Your task to perform on an android device: Open the calendar app, open the side menu, and click the "Day" option Image 0: 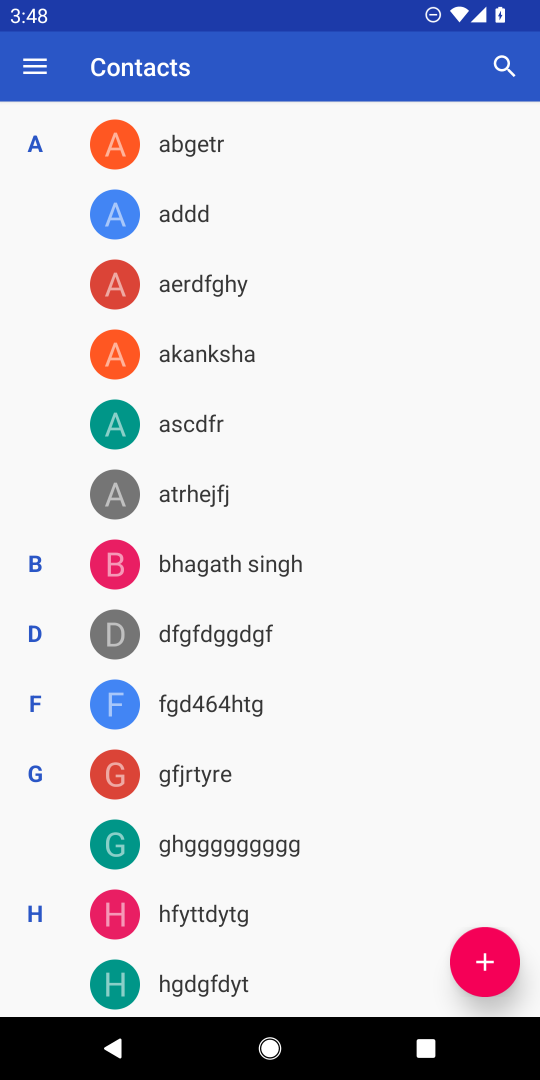
Step 0: press home button
Your task to perform on an android device: Open the calendar app, open the side menu, and click the "Day" option Image 1: 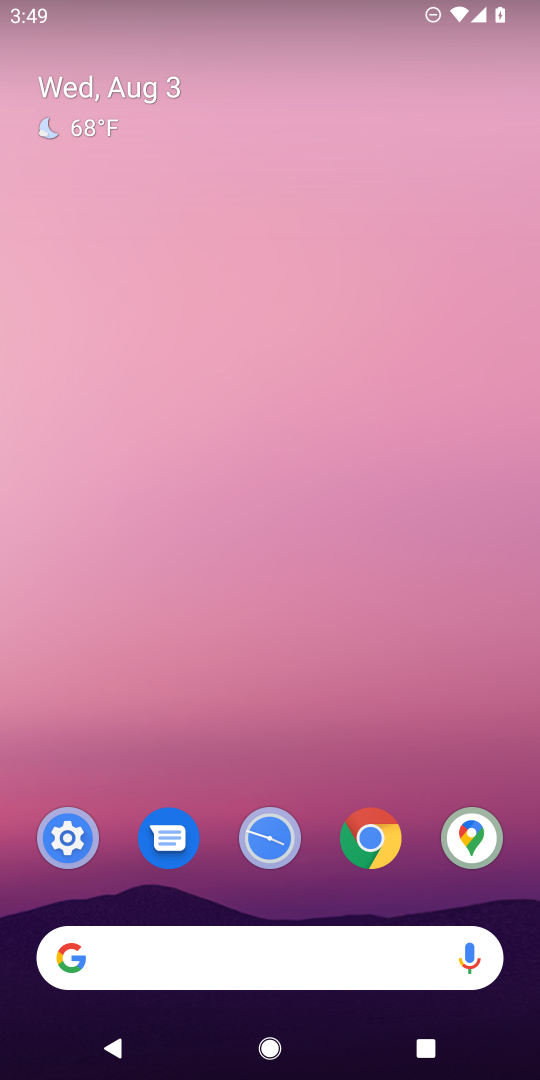
Step 1: drag from (254, 897) to (277, 46)
Your task to perform on an android device: Open the calendar app, open the side menu, and click the "Day" option Image 2: 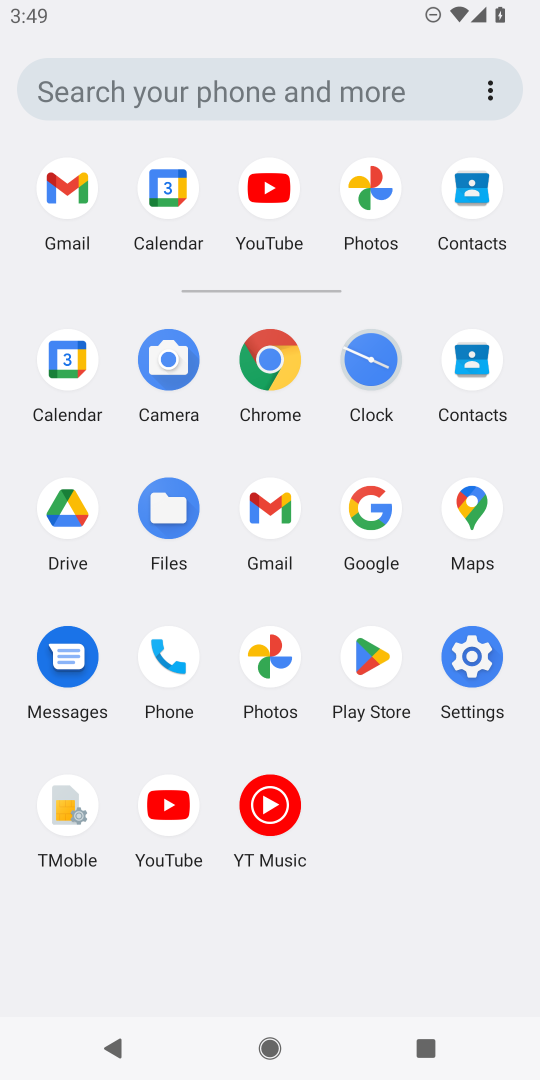
Step 2: click (153, 201)
Your task to perform on an android device: Open the calendar app, open the side menu, and click the "Day" option Image 3: 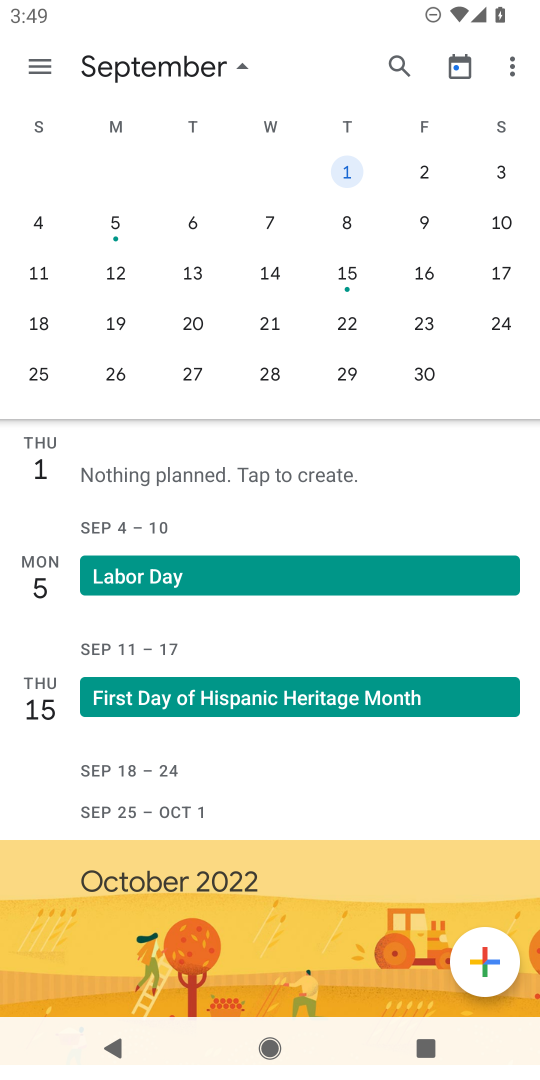
Step 3: click (55, 76)
Your task to perform on an android device: Open the calendar app, open the side menu, and click the "Day" option Image 4: 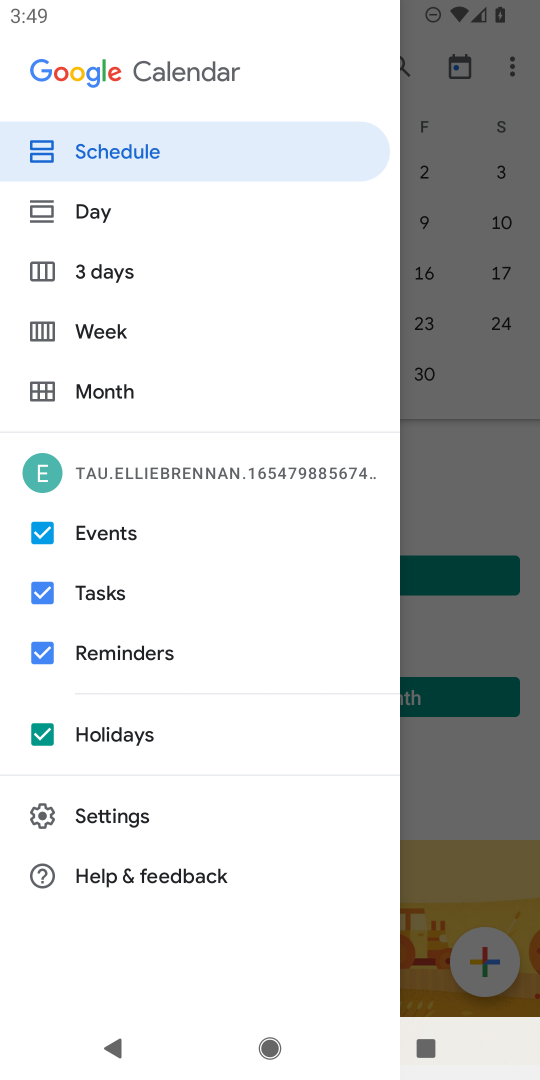
Step 4: click (117, 210)
Your task to perform on an android device: Open the calendar app, open the side menu, and click the "Day" option Image 5: 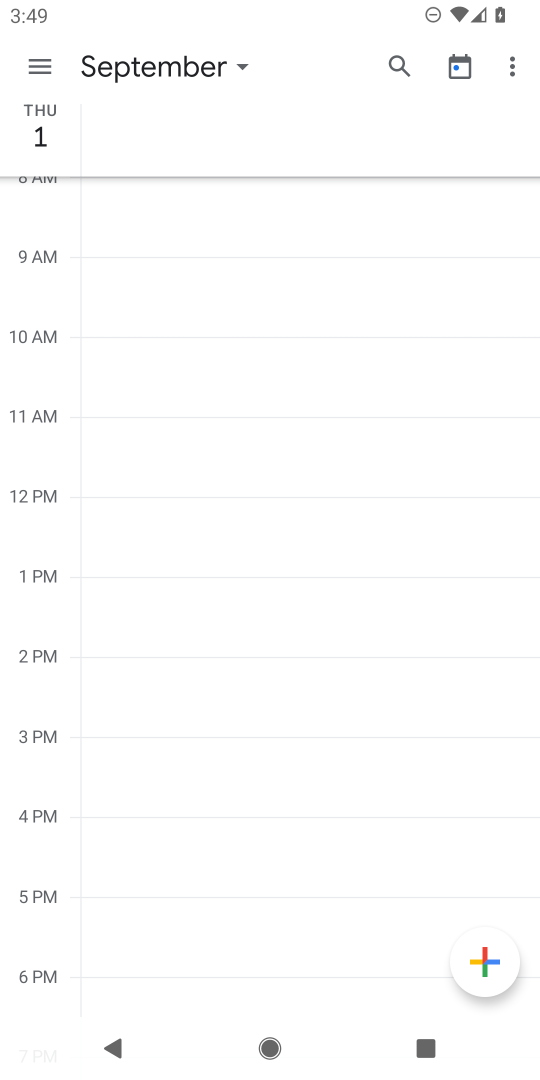
Step 5: task complete